Your task to perform on an android device: find photos in the google photos app Image 0: 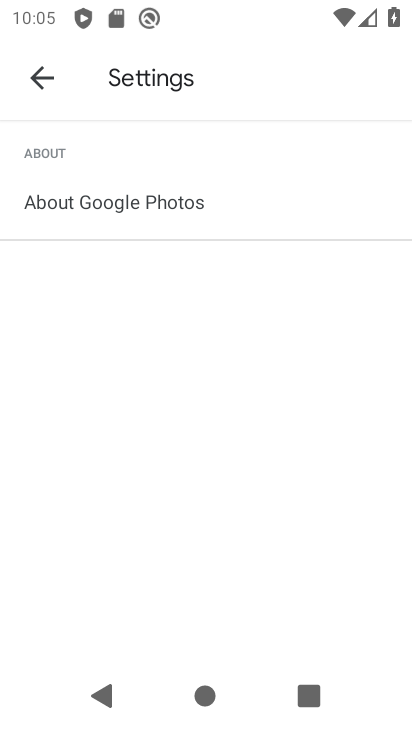
Step 0: press back button
Your task to perform on an android device: find photos in the google photos app Image 1: 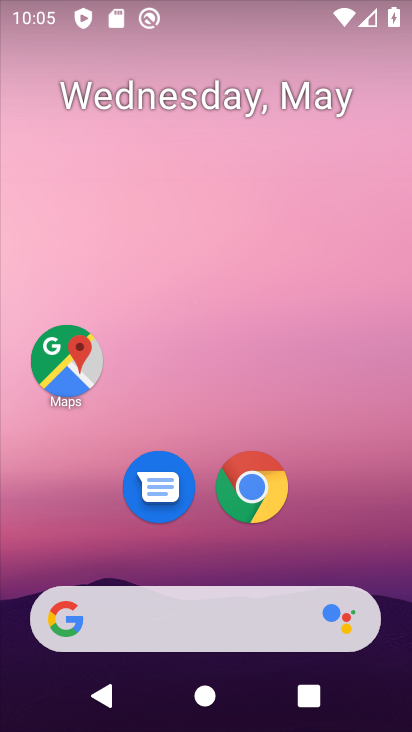
Step 1: drag from (340, 552) to (308, 36)
Your task to perform on an android device: find photos in the google photos app Image 2: 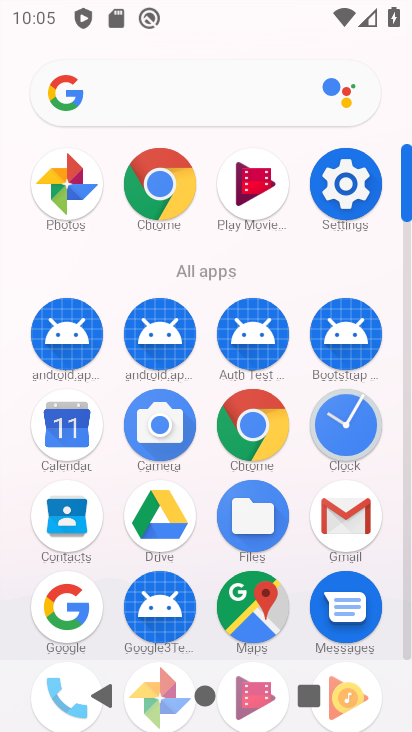
Step 2: drag from (11, 581) to (18, 202)
Your task to perform on an android device: find photos in the google photos app Image 3: 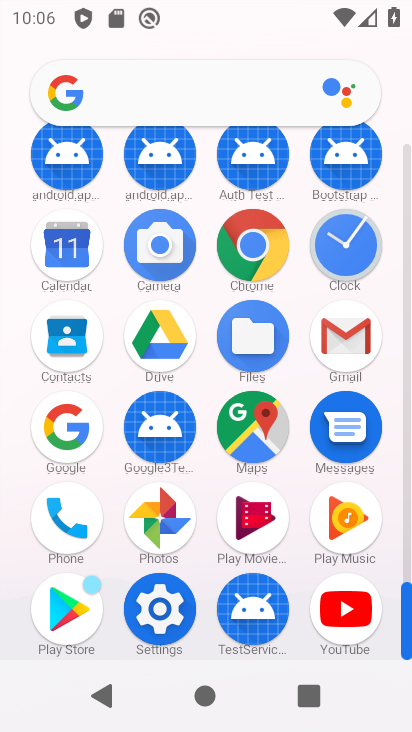
Step 3: click (158, 517)
Your task to perform on an android device: find photos in the google photos app Image 4: 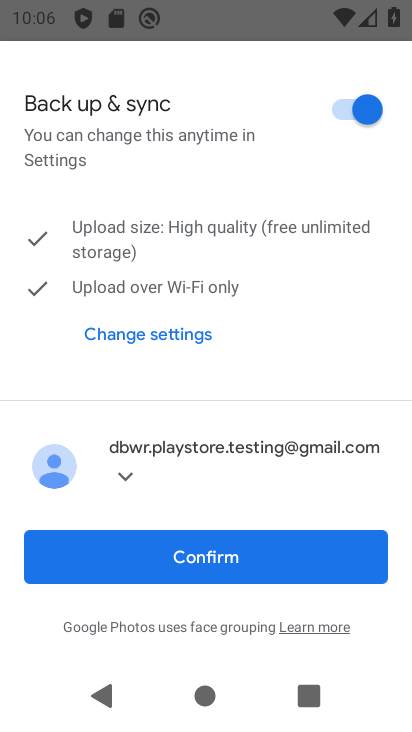
Step 4: click (175, 538)
Your task to perform on an android device: find photos in the google photos app Image 5: 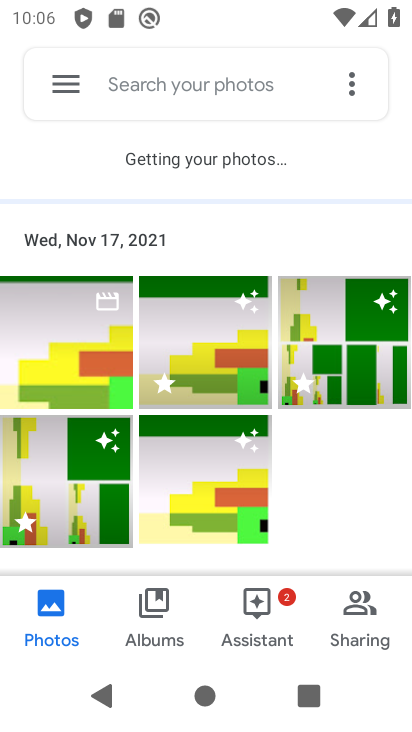
Step 5: task complete